Your task to perform on an android device: Open internet settings Image 0: 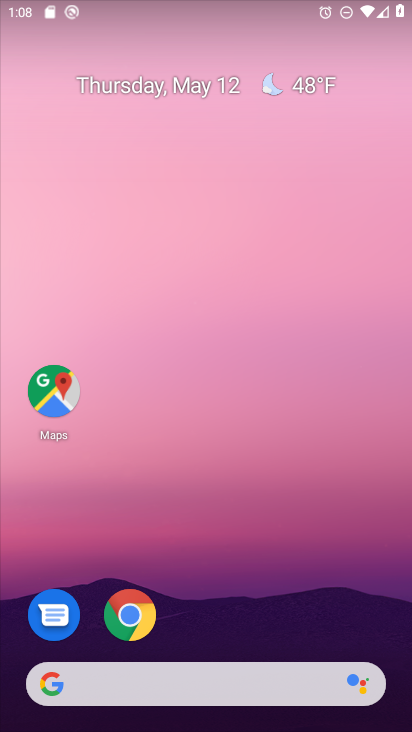
Step 0: drag from (269, 646) to (306, 21)
Your task to perform on an android device: Open internet settings Image 1: 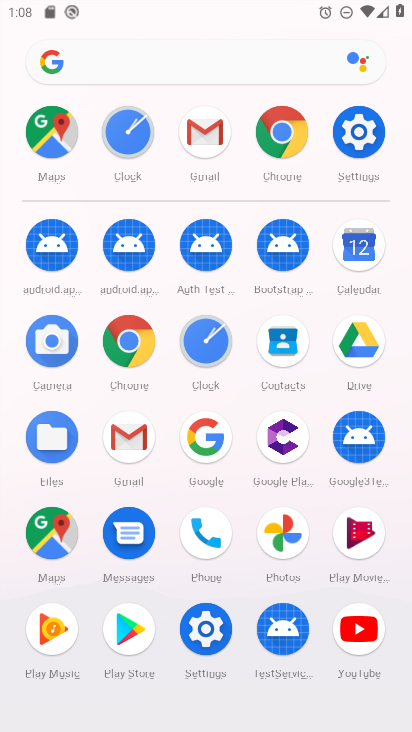
Step 1: click (343, 130)
Your task to perform on an android device: Open internet settings Image 2: 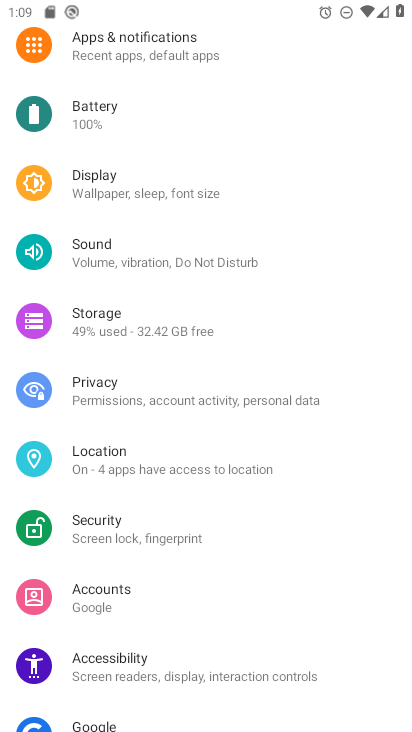
Step 2: drag from (184, 172) to (163, 675)
Your task to perform on an android device: Open internet settings Image 3: 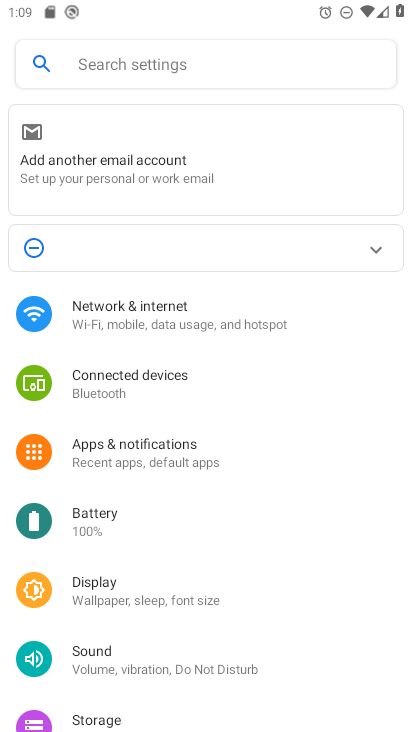
Step 3: click (187, 316)
Your task to perform on an android device: Open internet settings Image 4: 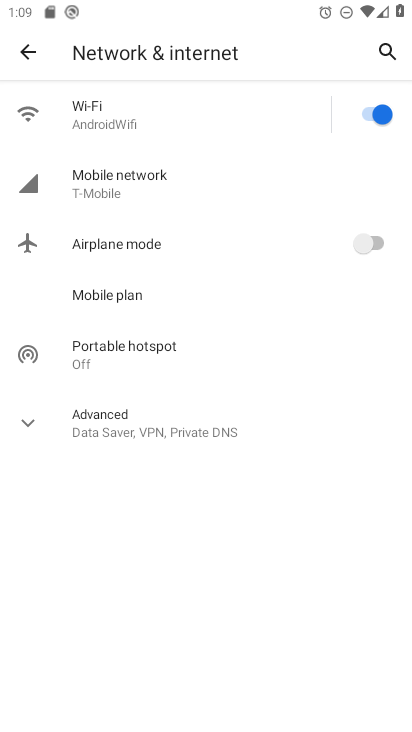
Step 4: task complete